Your task to perform on an android device: see creations saved in the google photos Image 0: 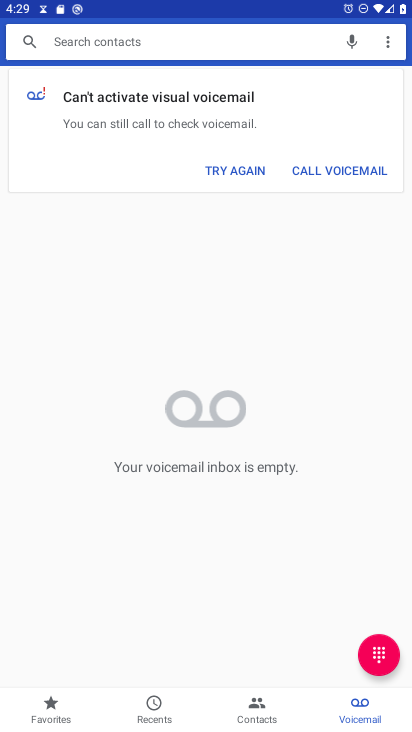
Step 0: press home button
Your task to perform on an android device: see creations saved in the google photos Image 1: 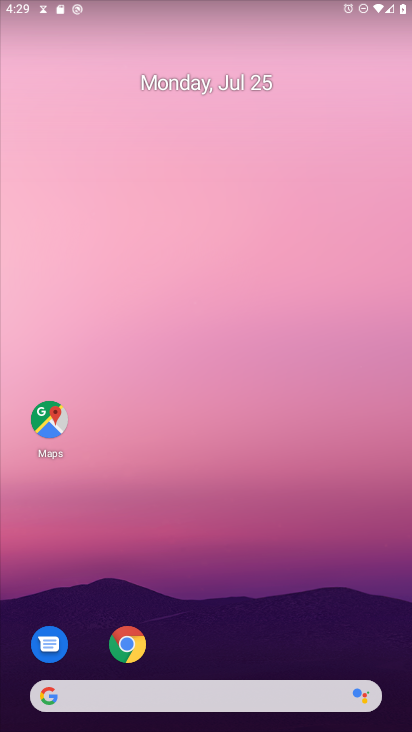
Step 1: drag from (236, 600) to (220, 159)
Your task to perform on an android device: see creations saved in the google photos Image 2: 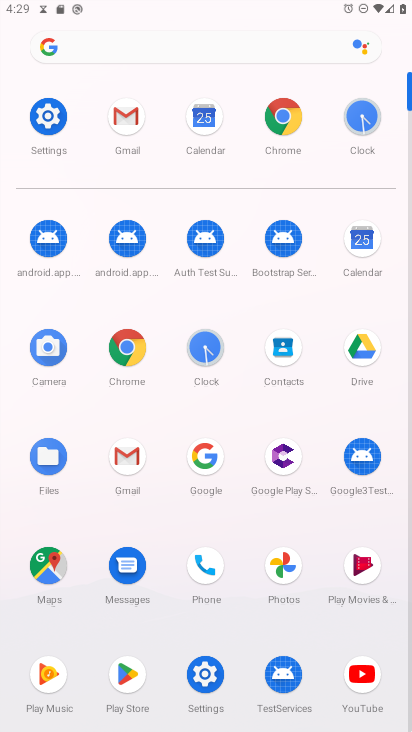
Step 2: click (277, 570)
Your task to perform on an android device: see creations saved in the google photos Image 3: 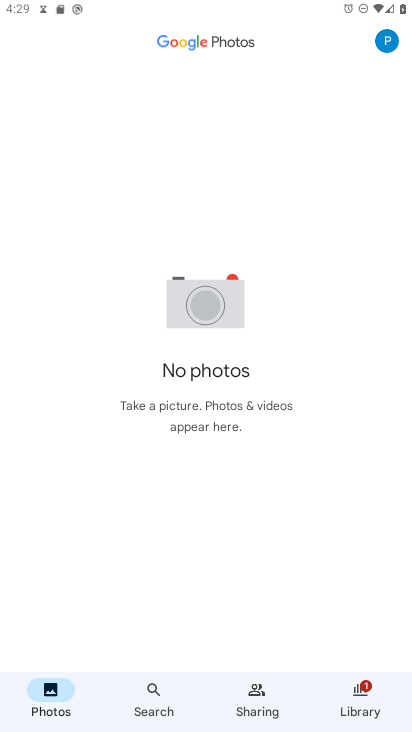
Step 3: click (150, 690)
Your task to perform on an android device: see creations saved in the google photos Image 4: 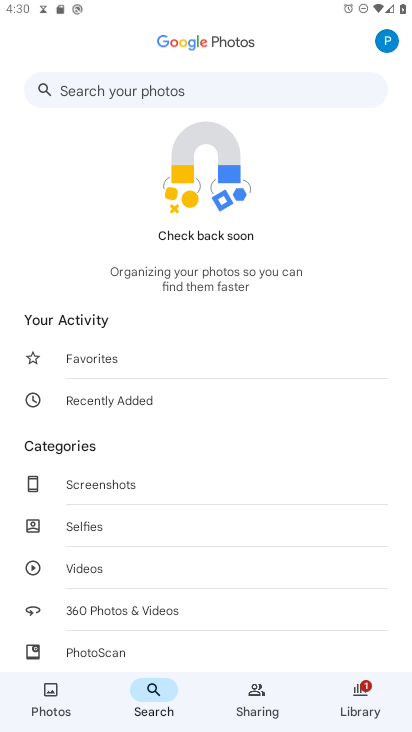
Step 4: drag from (200, 438) to (185, 224)
Your task to perform on an android device: see creations saved in the google photos Image 5: 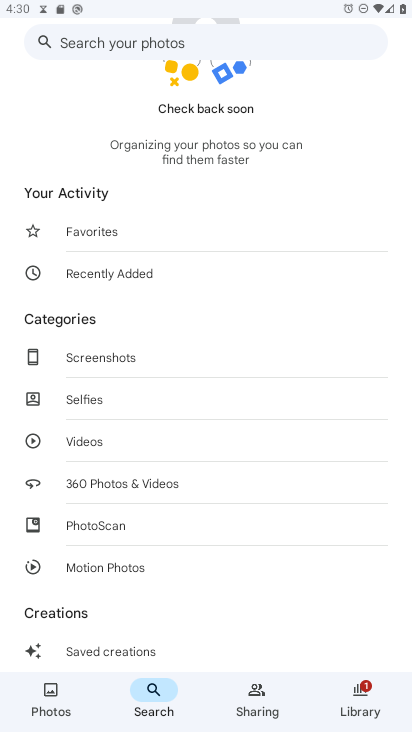
Step 5: click (88, 650)
Your task to perform on an android device: see creations saved in the google photos Image 6: 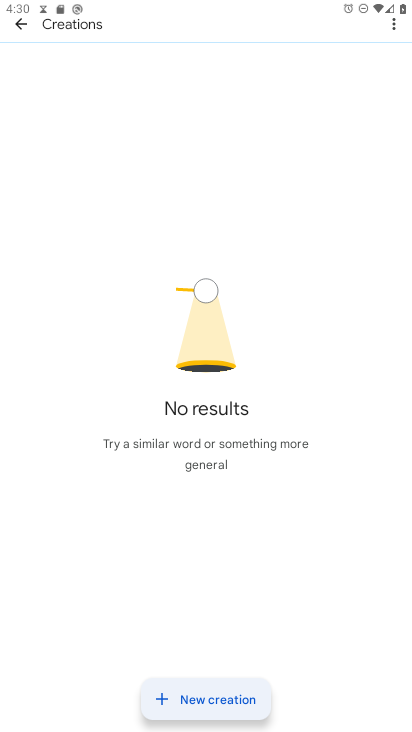
Step 6: task complete